Your task to perform on an android device: View the shopping cart on ebay. Search for asus rog on ebay, select the first entry, and add it to the cart. Image 0: 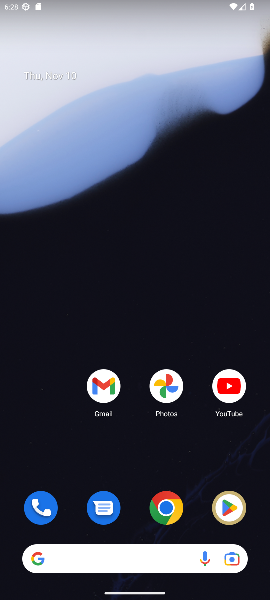
Step 0: click (171, 508)
Your task to perform on an android device: View the shopping cart on ebay. Search for asus rog on ebay, select the first entry, and add it to the cart. Image 1: 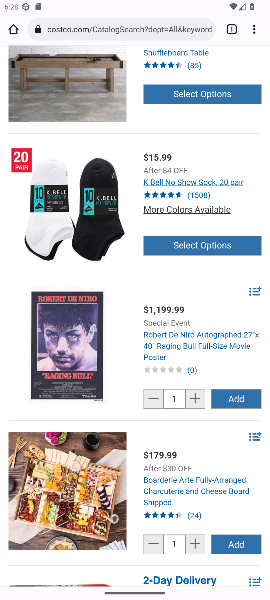
Step 1: click (167, 25)
Your task to perform on an android device: View the shopping cart on ebay. Search for asus rog on ebay, select the first entry, and add it to the cart. Image 2: 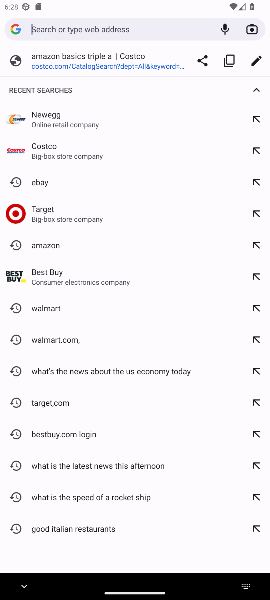
Step 2: click (38, 183)
Your task to perform on an android device: View the shopping cart on ebay. Search for asus rog on ebay, select the first entry, and add it to the cart. Image 3: 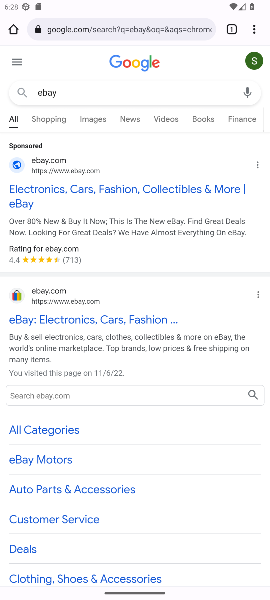
Step 3: click (76, 317)
Your task to perform on an android device: View the shopping cart on ebay. Search for asus rog on ebay, select the first entry, and add it to the cart. Image 4: 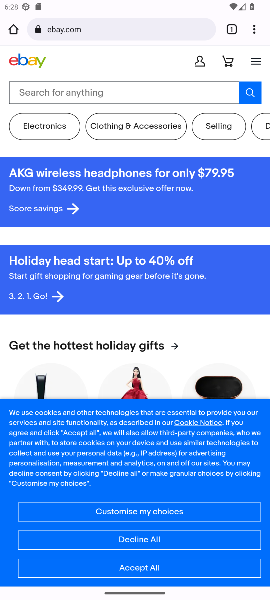
Step 4: click (139, 568)
Your task to perform on an android device: View the shopping cart on ebay. Search for asus rog on ebay, select the first entry, and add it to the cart. Image 5: 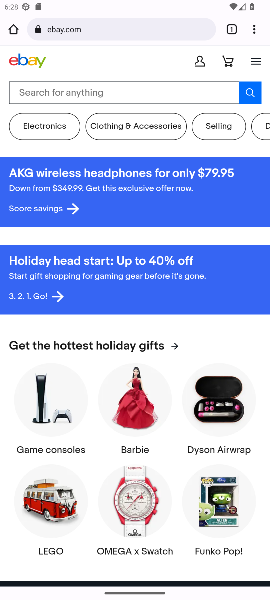
Step 5: click (121, 87)
Your task to perform on an android device: View the shopping cart on ebay. Search for asus rog on ebay, select the first entry, and add it to the cart. Image 6: 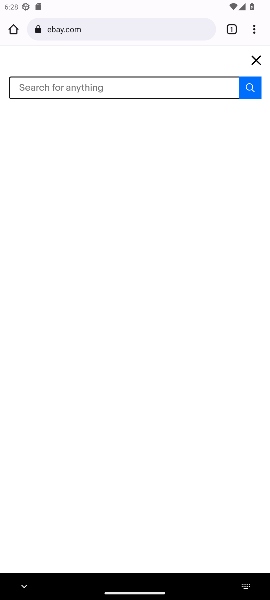
Step 6: type "asus rog"
Your task to perform on an android device: View the shopping cart on ebay. Search for asus rog on ebay, select the first entry, and add it to the cart. Image 7: 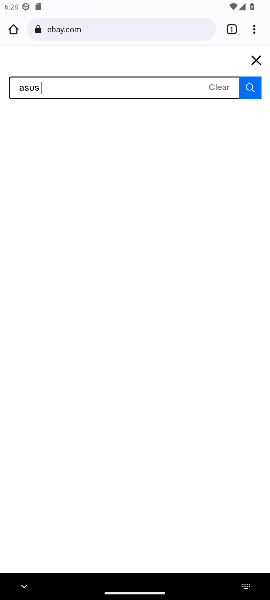
Step 7: press enter
Your task to perform on an android device: View the shopping cart on ebay. Search for asus rog on ebay, select the first entry, and add it to the cart. Image 8: 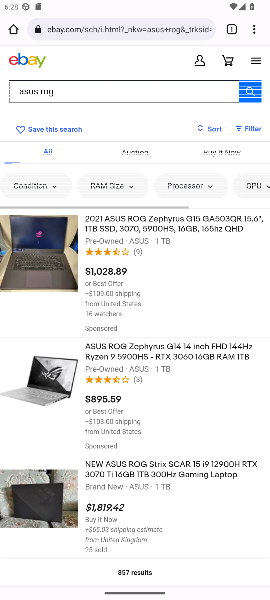
Step 8: click (174, 232)
Your task to perform on an android device: View the shopping cart on ebay. Search for asus rog on ebay, select the first entry, and add it to the cart. Image 9: 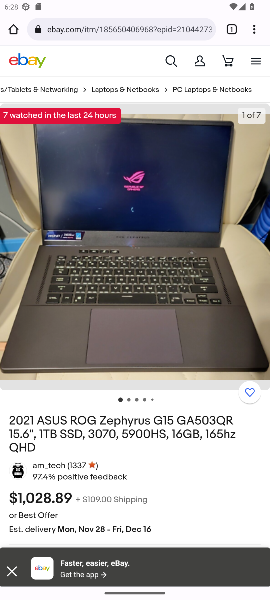
Step 9: drag from (188, 509) to (209, 155)
Your task to perform on an android device: View the shopping cart on ebay. Search for asus rog on ebay, select the first entry, and add it to the cart. Image 10: 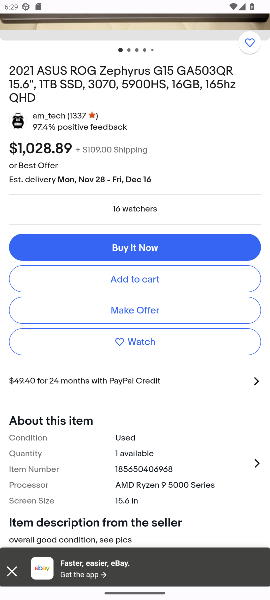
Step 10: click (127, 276)
Your task to perform on an android device: View the shopping cart on ebay. Search for asus rog on ebay, select the first entry, and add it to the cart. Image 11: 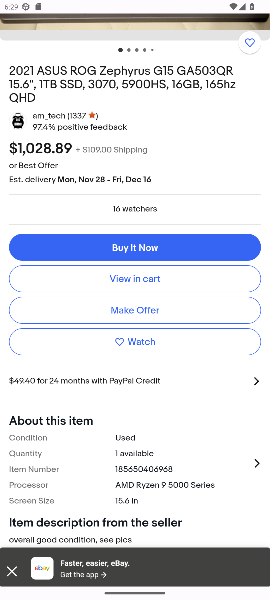
Step 11: click (129, 276)
Your task to perform on an android device: View the shopping cart on ebay. Search for asus rog on ebay, select the first entry, and add it to the cart. Image 12: 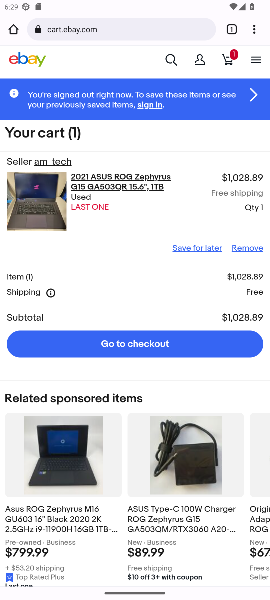
Step 12: task complete